Your task to perform on an android device: Search for vegetarian restaurants on Maps Image 0: 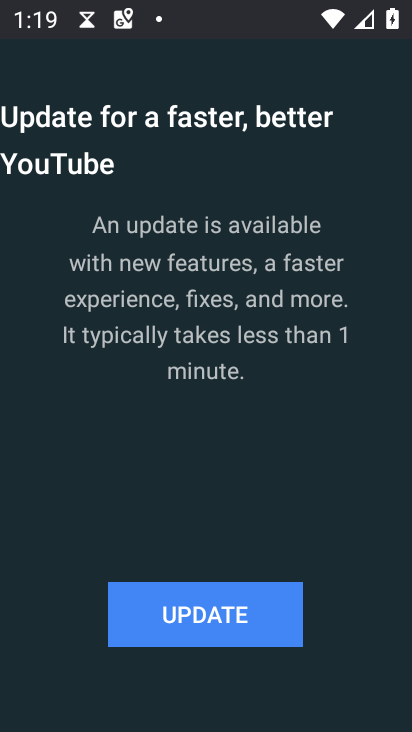
Step 0: press home button
Your task to perform on an android device: Search for vegetarian restaurants on Maps Image 1: 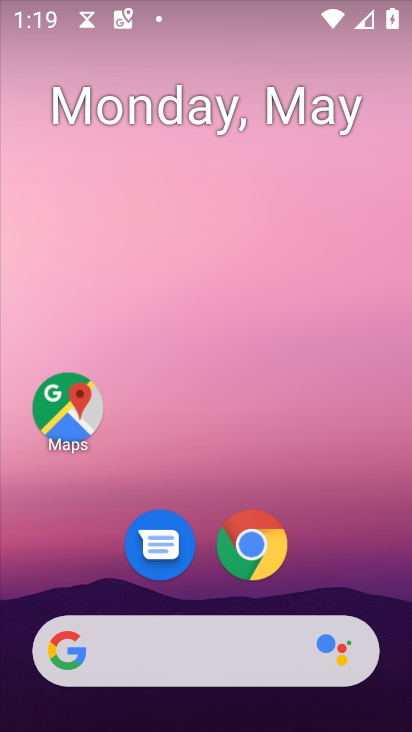
Step 1: drag from (359, 563) to (354, 174)
Your task to perform on an android device: Search for vegetarian restaurants on Maps Image 2: 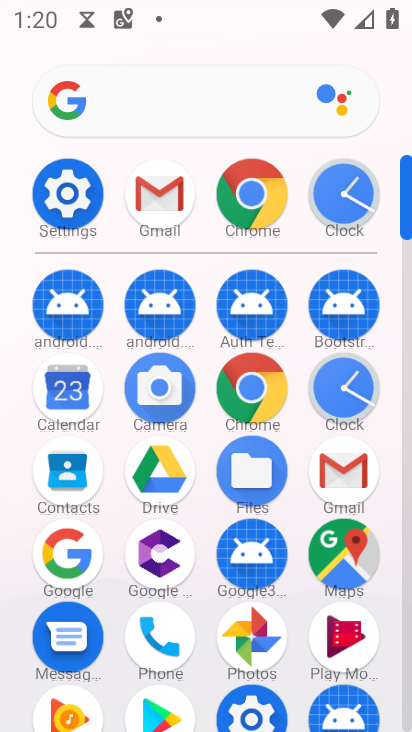
Step 2: click (341, 552)
Your task to perform on an android device: Search for vegetarian restaurants on Maps Image 3: 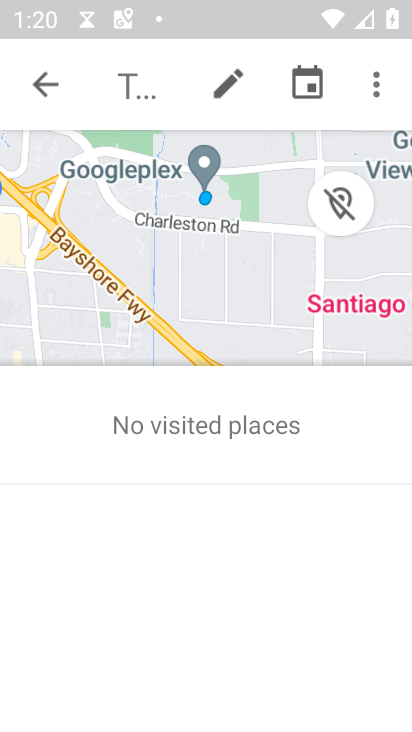
Step 3: click (63, 78)
Your task to perform on an android device: Search for vegetarian restaurants on Maps Image 4: 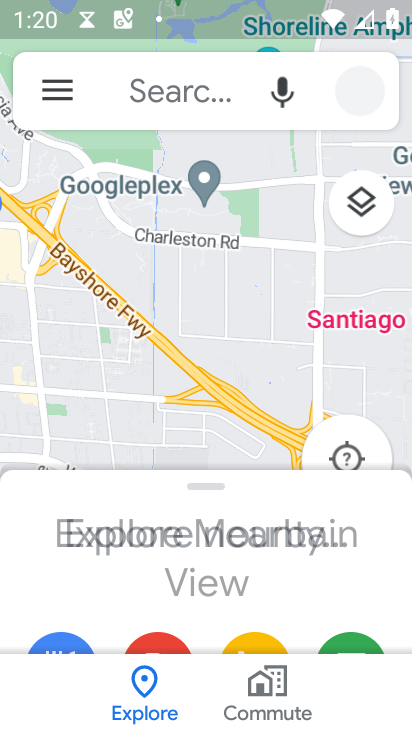
Step 4: click (132, 76)
Your task to perform on an android device: Search for vegetarian restaurants on Maps Image 5: 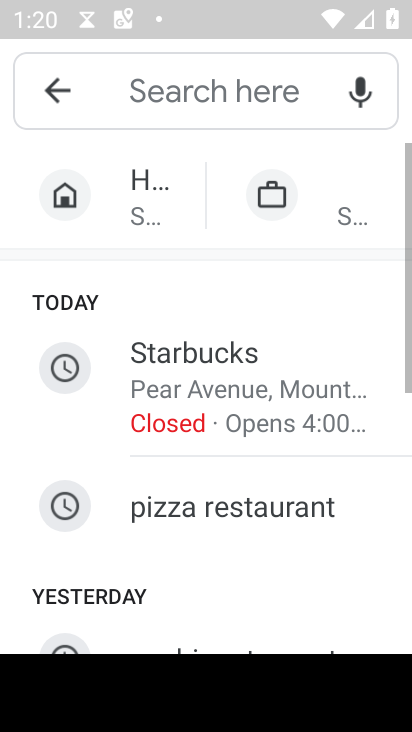
Step 5: drag from (239, 563) to (252, 252)
Your task to perform on an android device: Search for vegetarian restaurants on Maps Image 6: 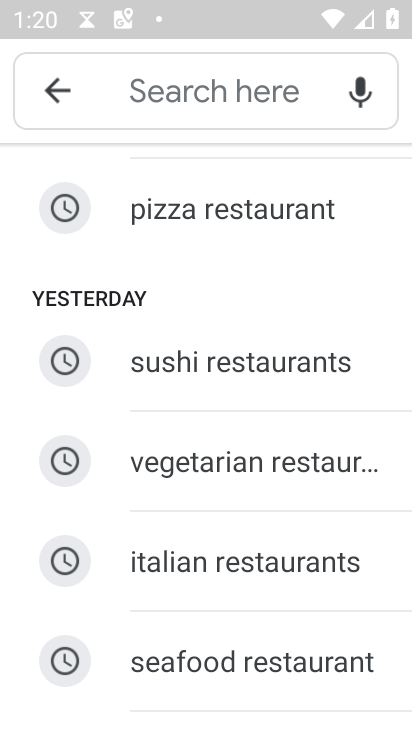
Step 6: click (189, 453)
Your task to perform on an android device: Search for vegetarian restaurants on Maps Image 7: 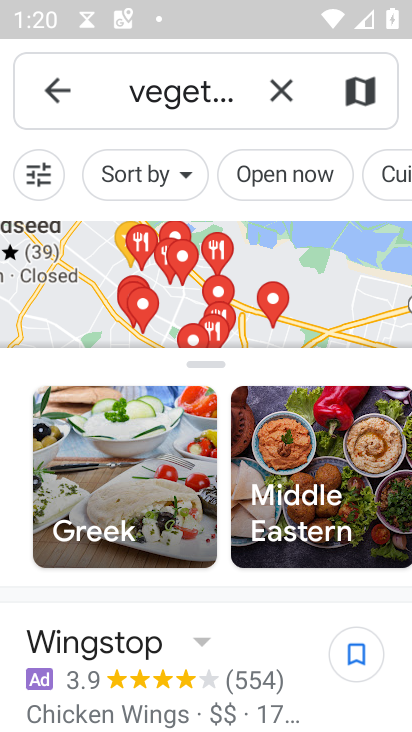
Step 7: task complete